Your task to perform on an android device: Go to Reddit.com Image 0: 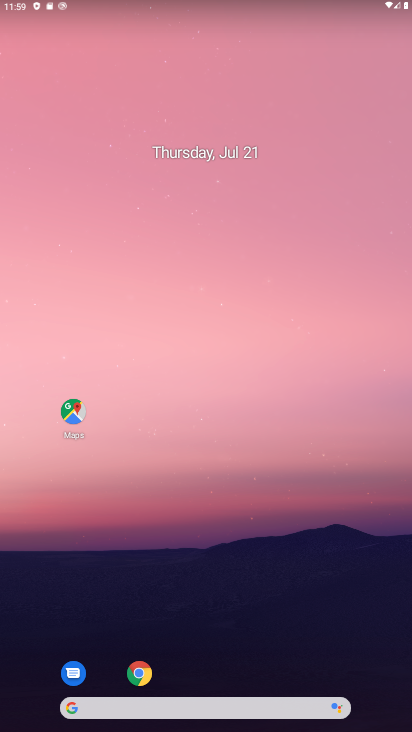
Step 0: drag from (201, 523) to (211, 23)
Your task to perform on an android device: Go to Reddit.com Image 1: 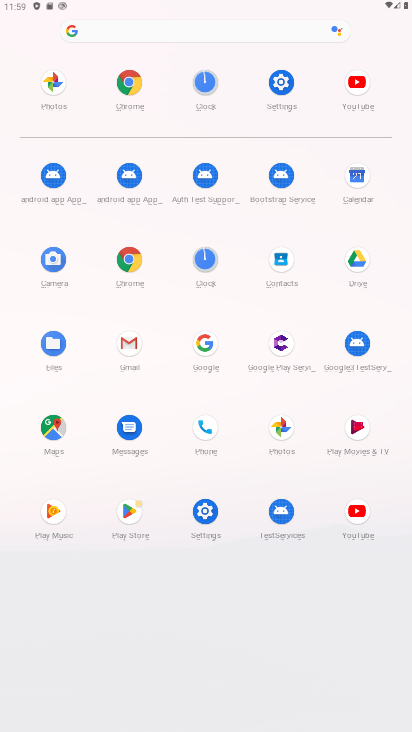
Step 1: click (171, 34)
Your task to perform on an android device: Go to Reddit.com Image 2: 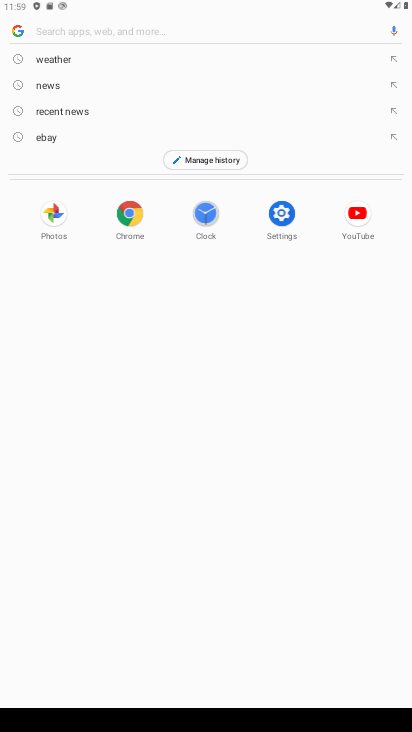
Step 2: type ""
Your task to perform on an android device: Go to Reddit.com Image 3: 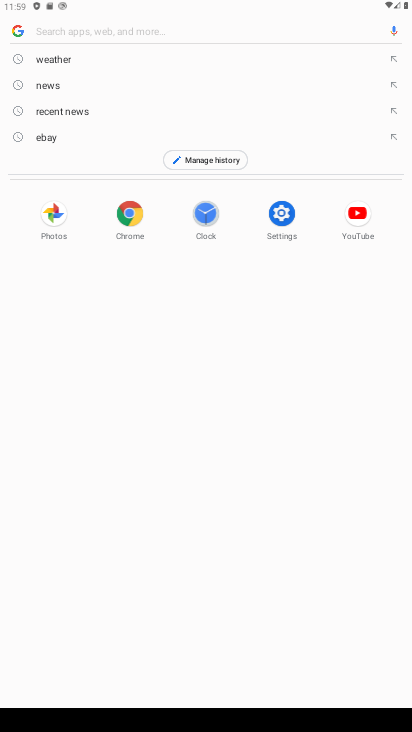
Step 3: type "Reddit.com"
Your task to perform on an android device: Go to Reddit.com Image 4: 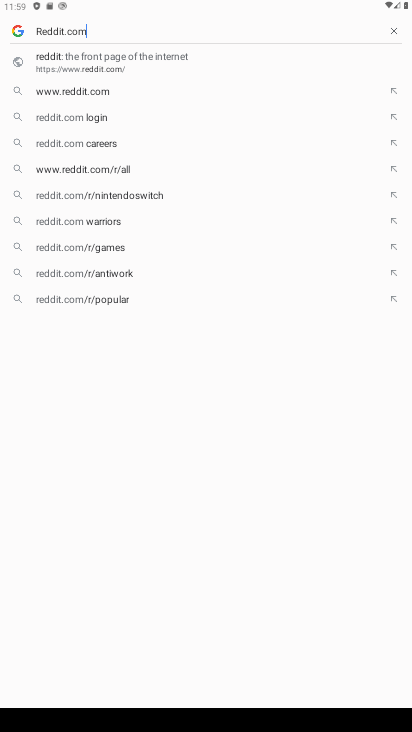
Step 4: click (88, 95)
Your task to perform on an android device: Go to Reddit.com Image 5: 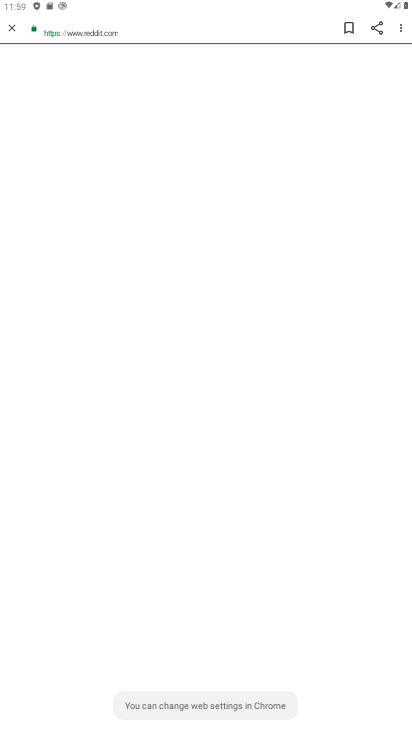
Step 5: task complete